Your task to perform on an android device: Open Chrome and go to settings Image 0: 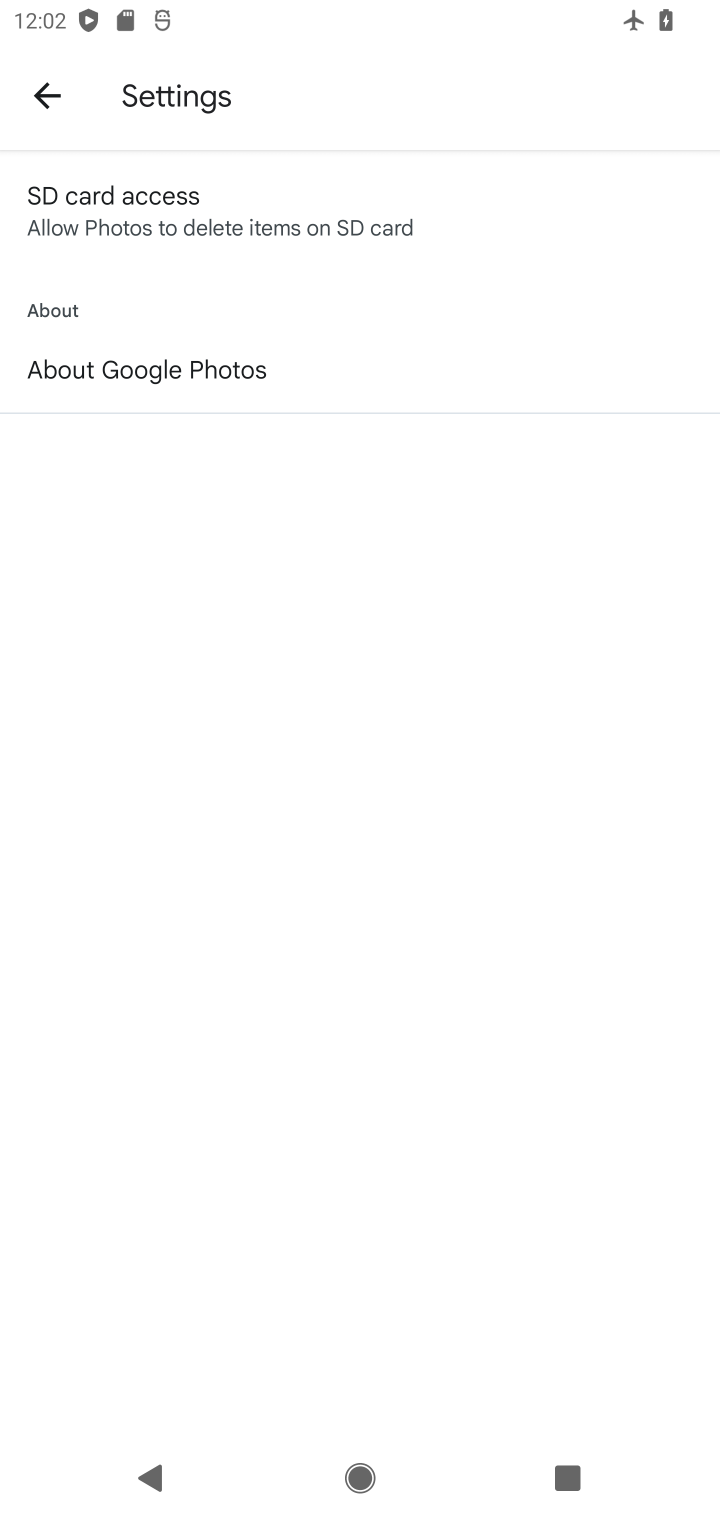
Step 0: press home button
Your task to perform on an android device: Open Chrome and go to settings Image 1: 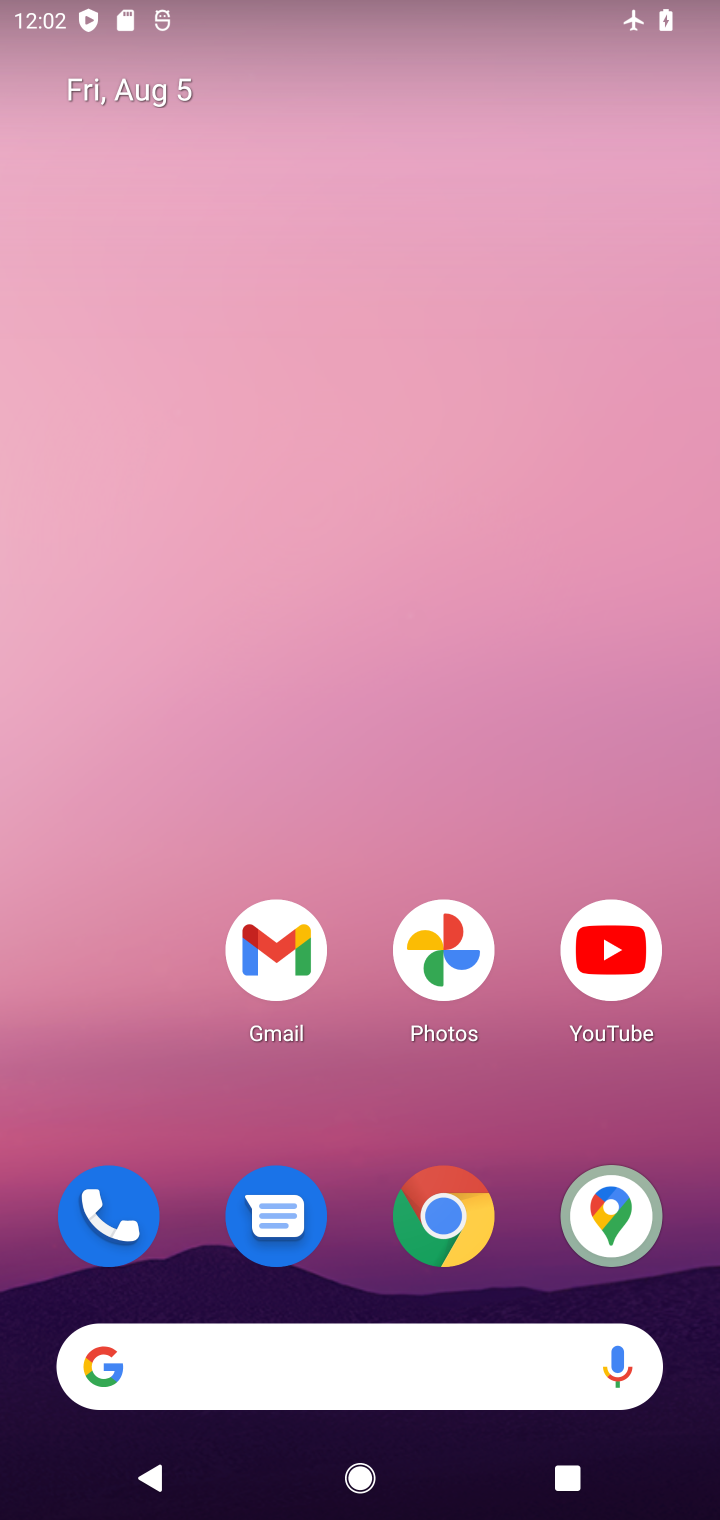
Step 1: click (427, 1238)
Your task to perform on an android device: Open Chrome and go to settings Image 2: 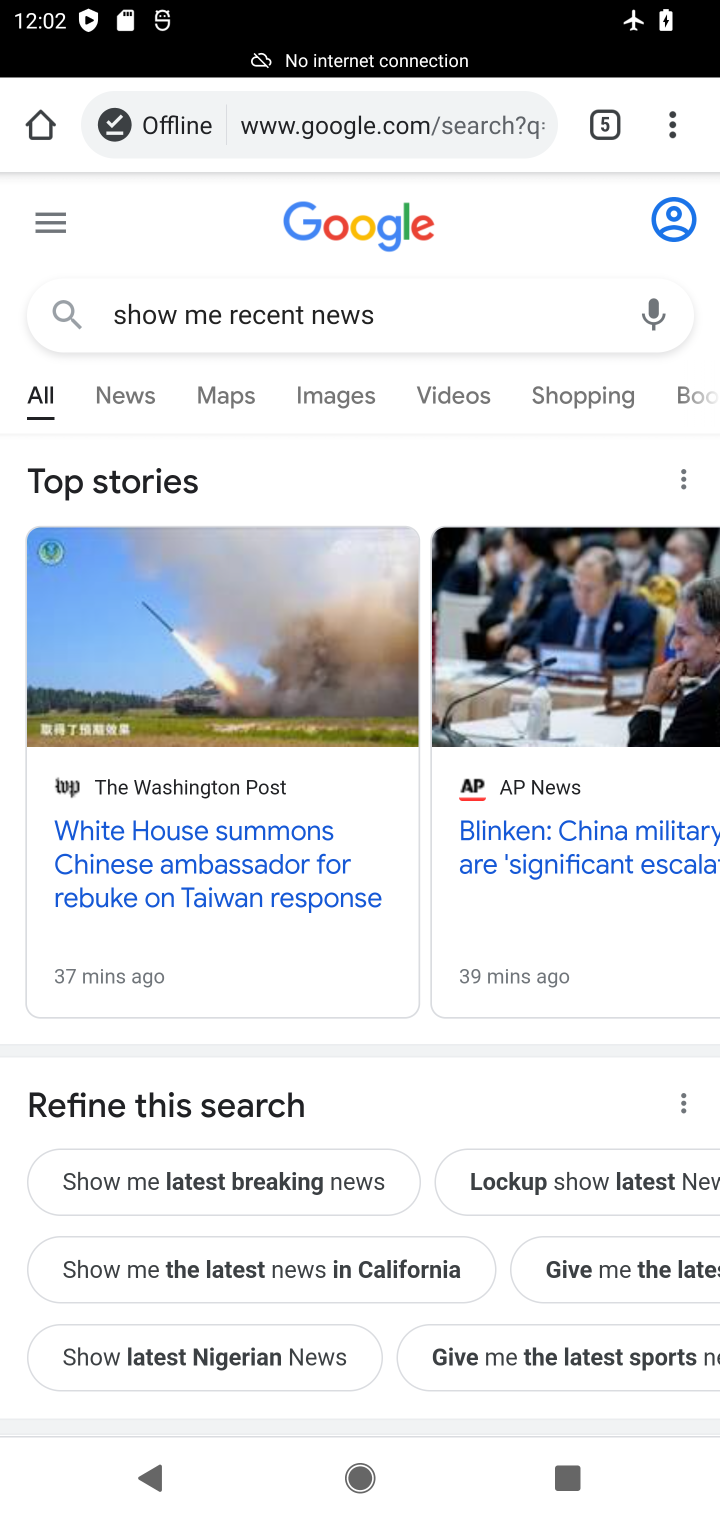
Step 2: task complete